Your task to perform on an android device: Toggle the flashlight Image 0: 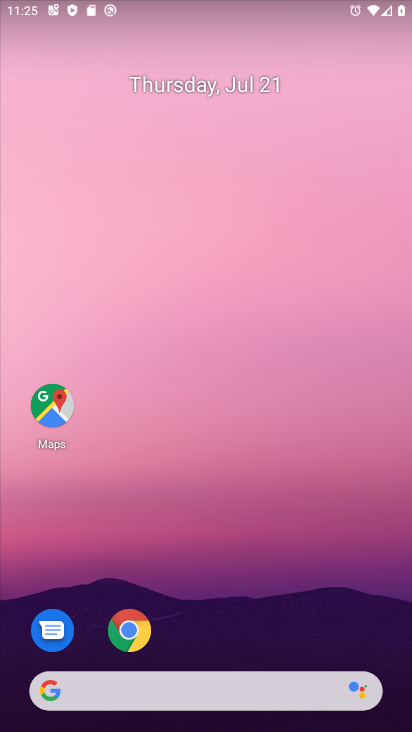
Step 0: drag from (238, 654) to (187, 119)
Your task to perform on an android device: Toggle the flashlight Image 1: 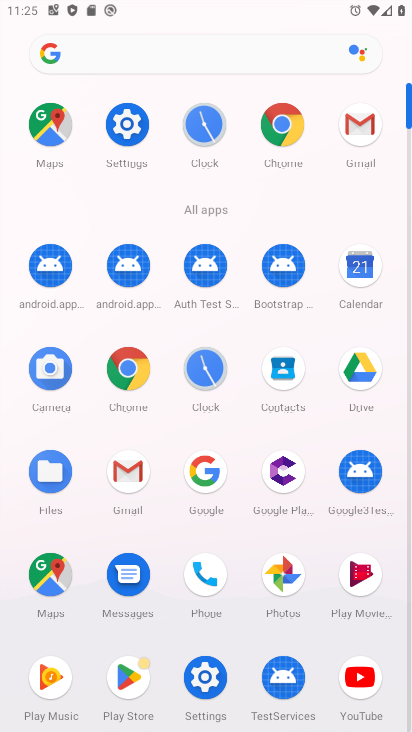
Step 1: click (130, 127)
Your task to perform on an android device: Toggle the flashlight Image 2: 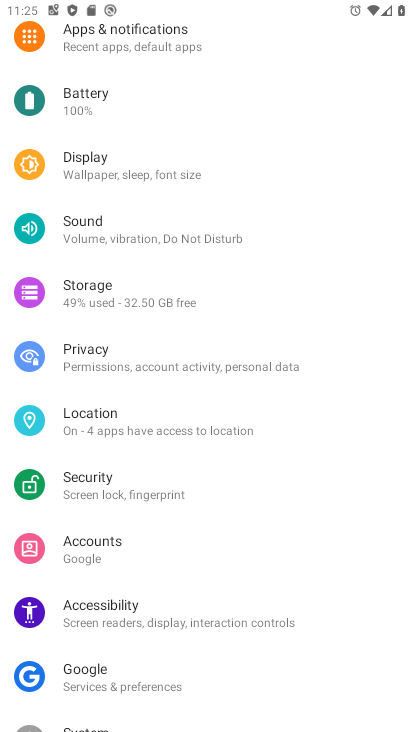
Step 2: task complete